Your task to perform on an android device: turn notification dots on Image 0: 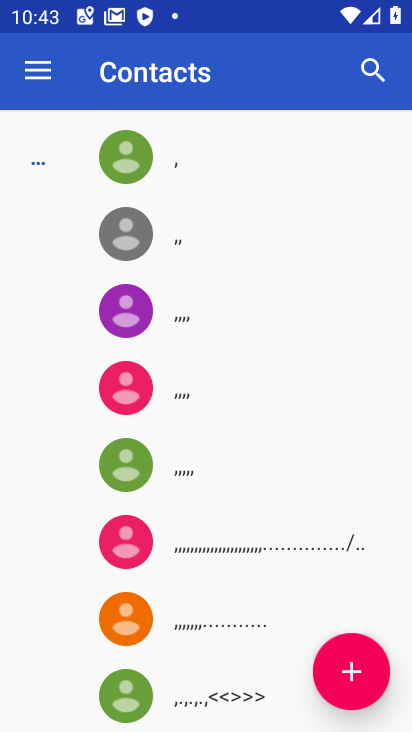
Step 0: press home button
Your task to perform on an android device: turn notification dots on Image 1: 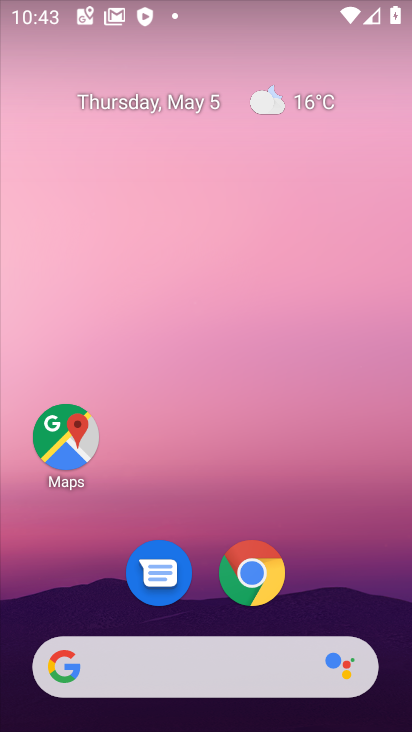
Step 1: drag from (348, 580) to (281, 93)
Your task to perform on an android device: turn notification dots on Image 2: 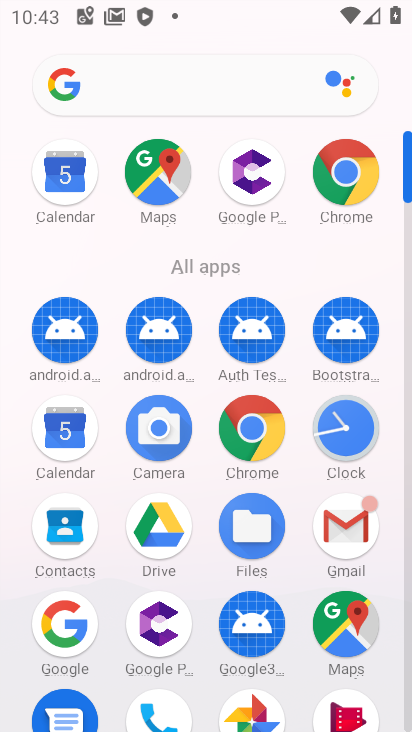
Step 2: click (406, 417)
Your task to perform on an android device: turn notification dots on Image 3: 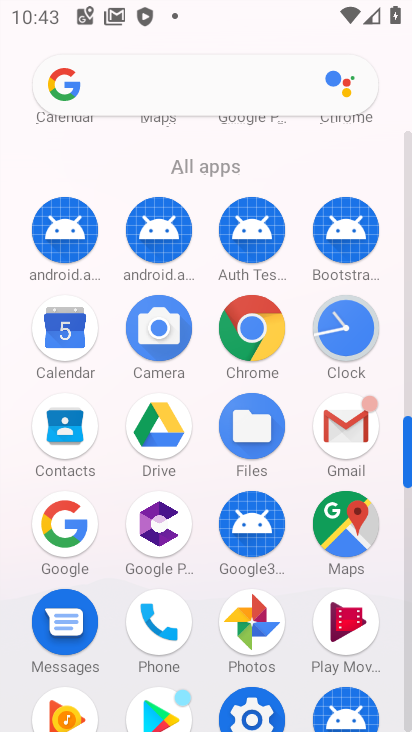
Step 3: click (406, 417)
Your task to perform on an android device: turn notification dots on Image 4: 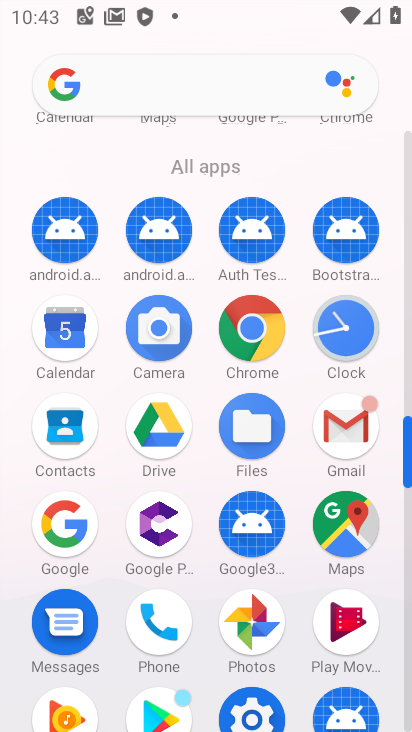
Step 4: click (249, 699)
Your task to perform on an android device: turn notification dots on Image 5: 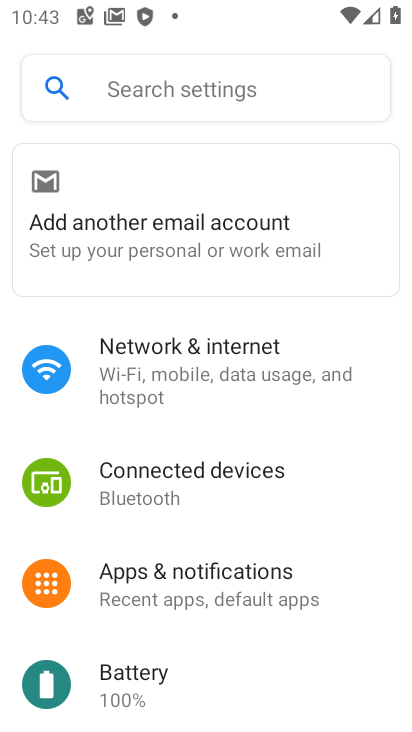
Step 5: click (231, 568)
Your task to perform on an android device: turn notification dots on Image 6: 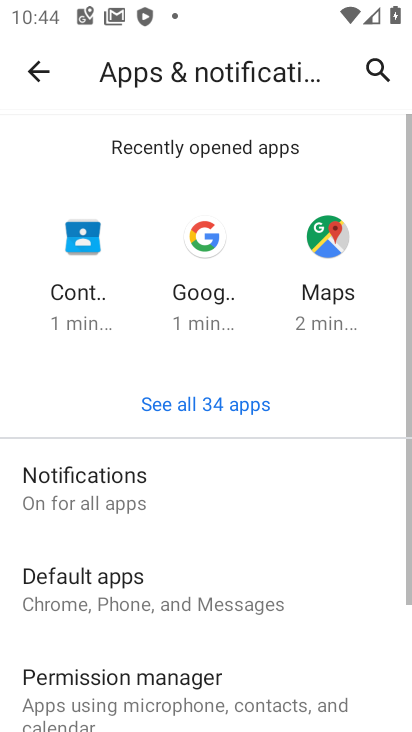
Step 6: drag from (254, 557) to (303, 266)
Your task to perform on an android device: turn notification dots on Image 7: 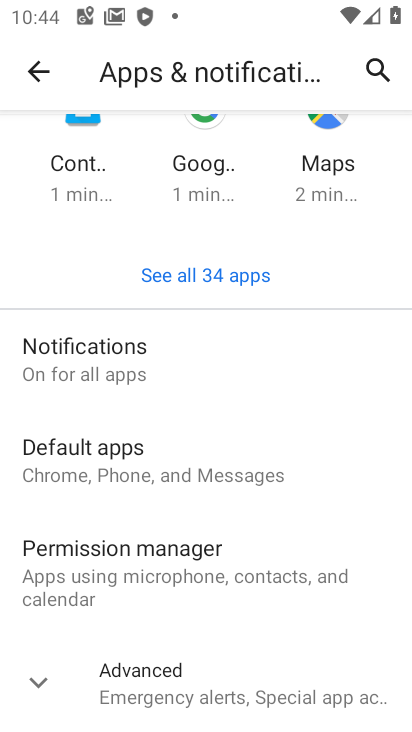
Step 7: click (182, 668)
Your task to perform on an android device: turn notification dots on Image 8: 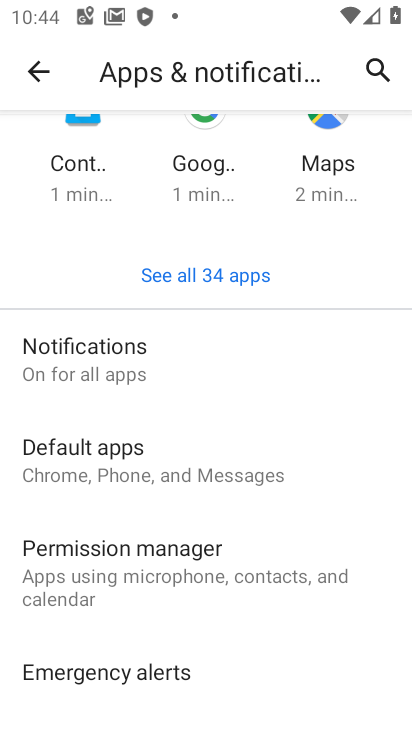
Step 8: click (132, 358)
Your task to perform on an android device: turn notification dots on Image 9: 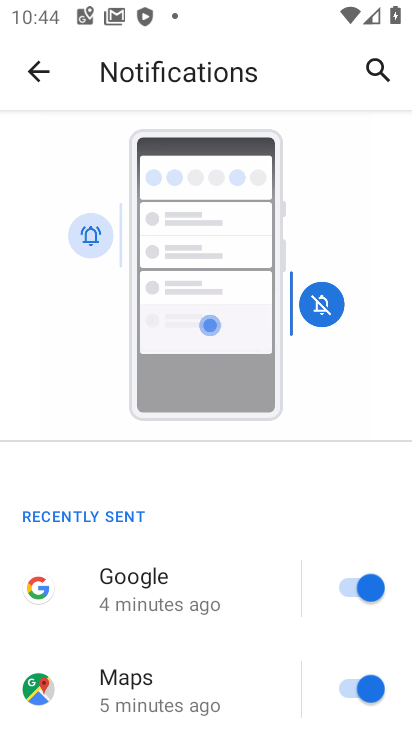
Step 9: drag from (247, 550) to (251, 199)
Your task to perform on an android device: turn notification dots on Image 10: 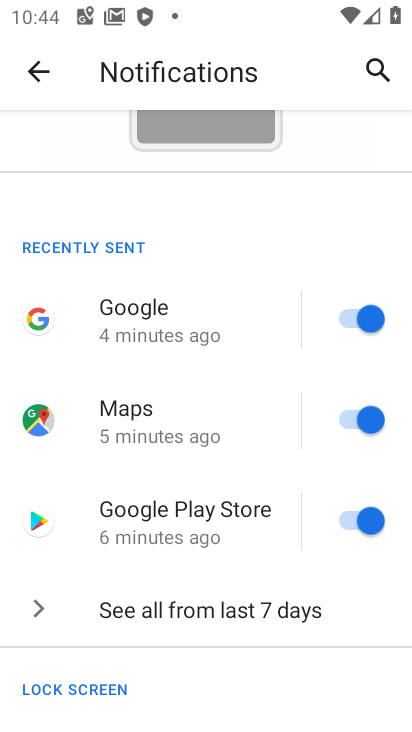
Step 10: drag from (221, 722) to (223, 391)
Your task to perform on an android device: turn notification dots on Image 11: 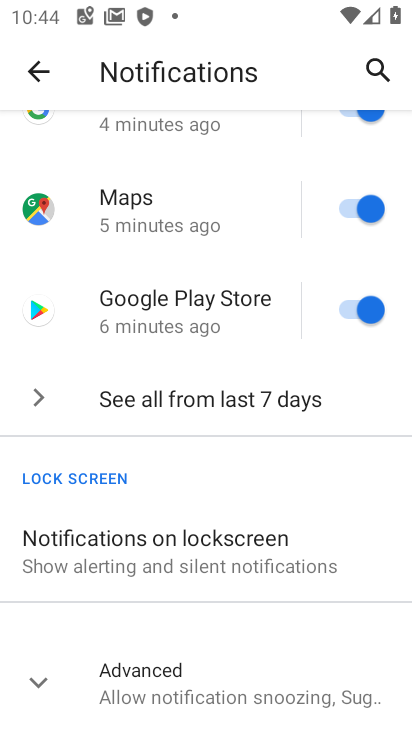
Step 11: click (165, 677)
Your task to perform on an android device: turn notification dots on Image 12: 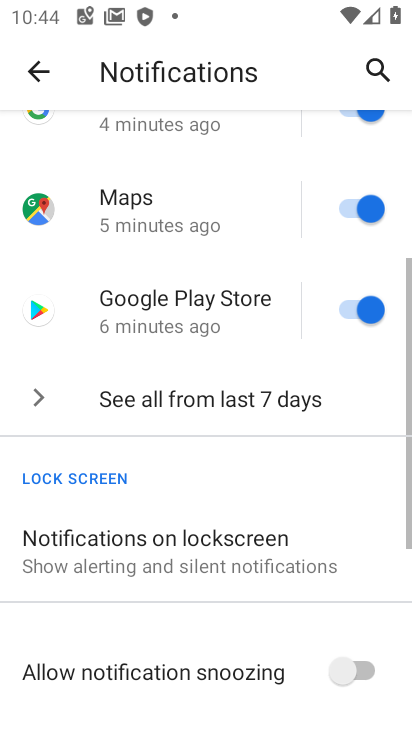
Step 12: task complete